Your task to perform on an android device: create a new album in the google photos Image 0: 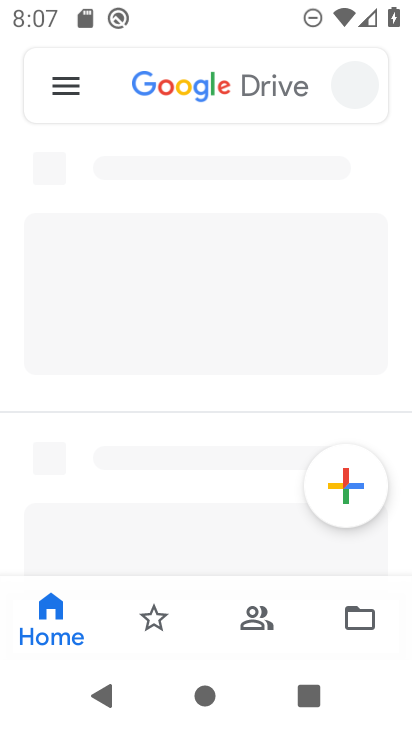
Step 0: drag from (209, 576) to (261, 305)
Your task to perform on an android device: create a new album in the google photos Image 1: 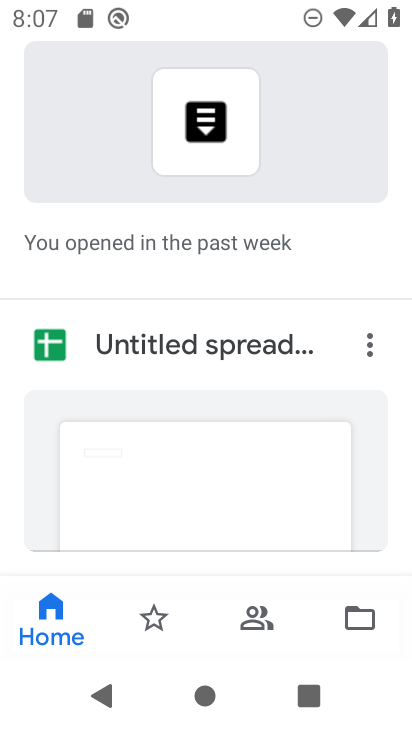
Step 1: press home button
Your task to perform on an android device: create a new album in the google photos Image 2: 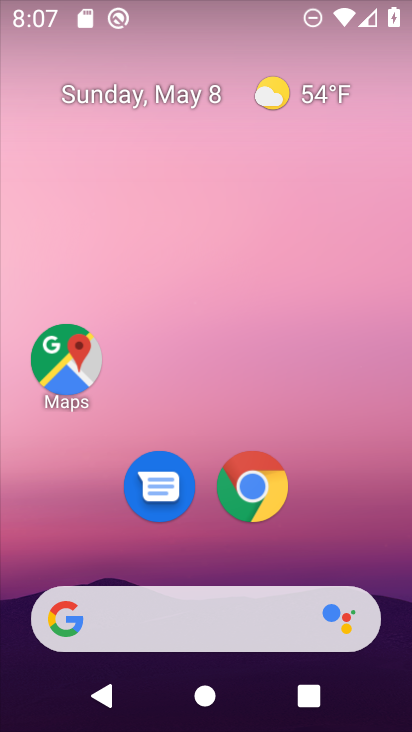
Step 2: drag from (189, 538) to (267, 221)
Your task to perform on an android device: create a new album in the google photos Image 3: 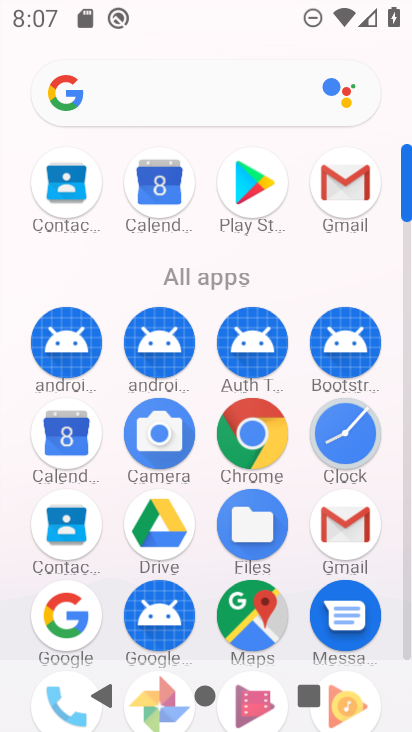
Step 3: drag from (210, 563) to (261, 292)
Your task to perform on an android device: create a new album in the google photos Image 4: 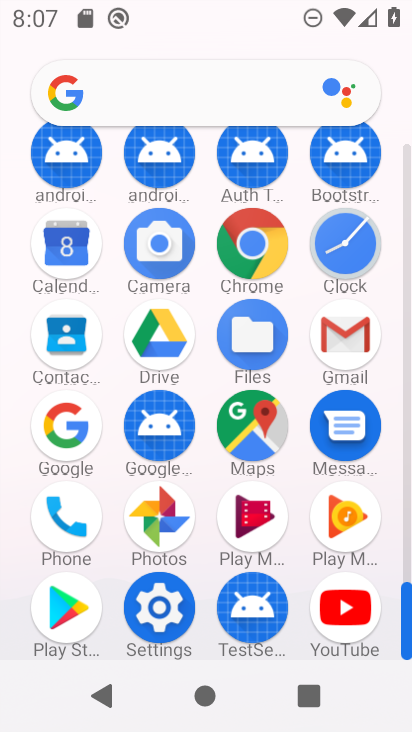
Step 4: click (151, 524)
Your task to perform on an android device: create a new album in the google photos Image 5: 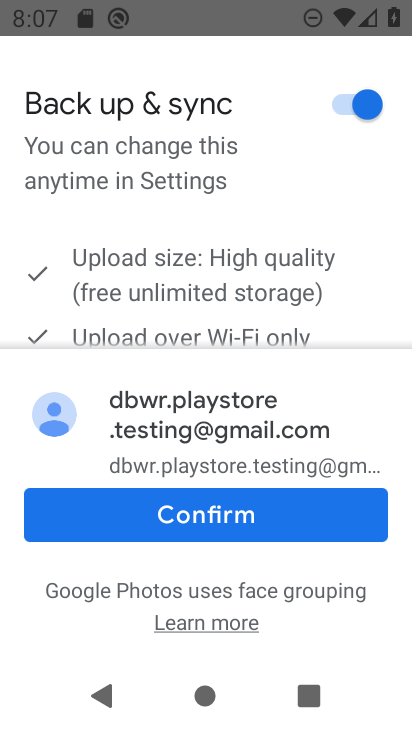
Step 5: click (159, 503)
Your task to perform on an android device: create a new album in the google photos Image 6: 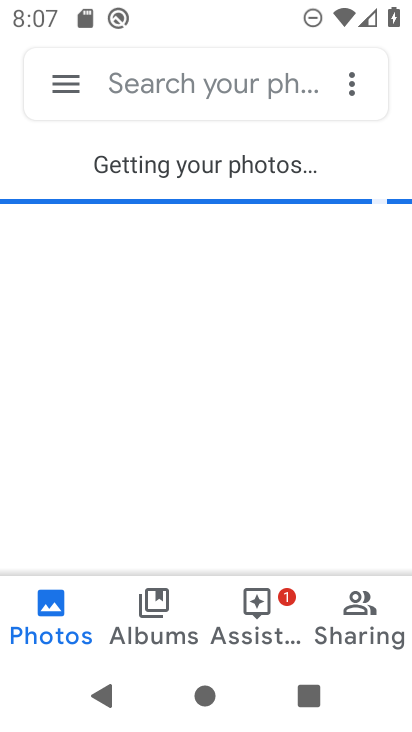
Step 6: click (148, 630)
Your task to perform on an android device: create a new album in the google photos Image 7: 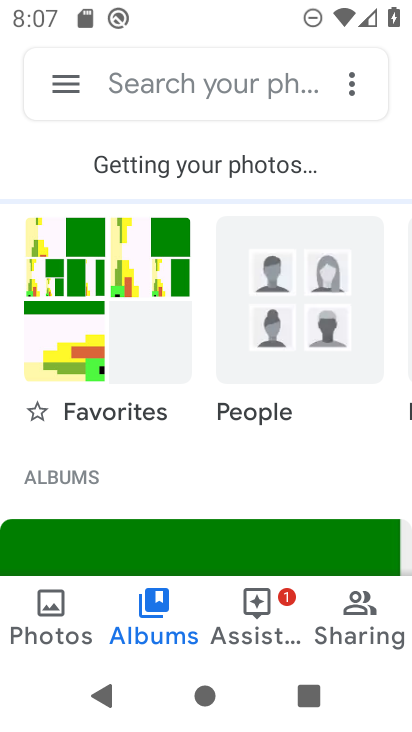
Step 7: click (260, 634)
Your task to perform on an android device: create a new album in the google photos Image 8: 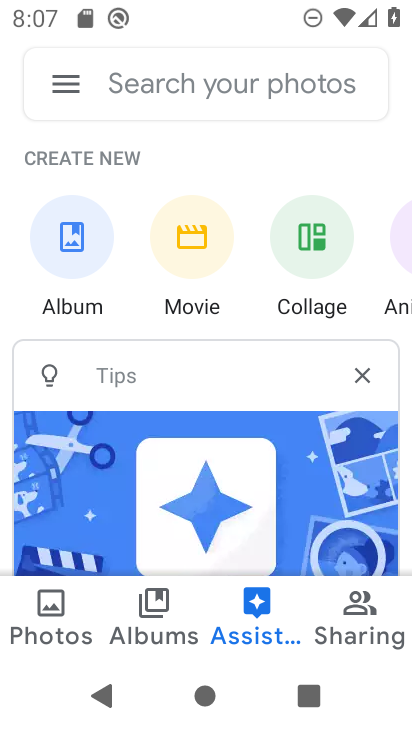
Step 8: click (76, 247)
Your task to perform on an android device: create a new album in the google photos Image 9: 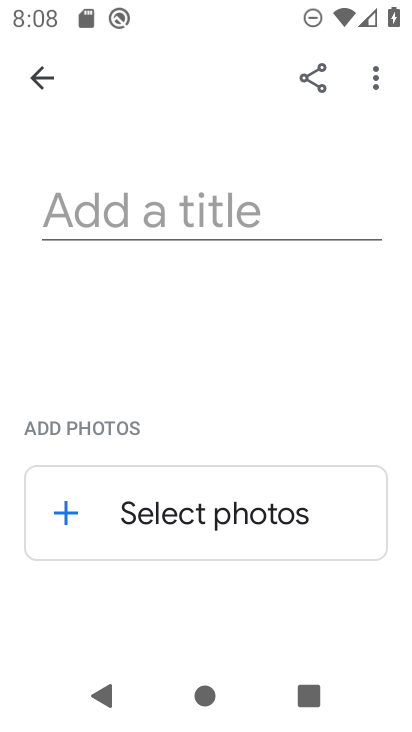
Step 9: click (175, 494)
Your task to perform on an android device: create a new album in the google photos Image 10: 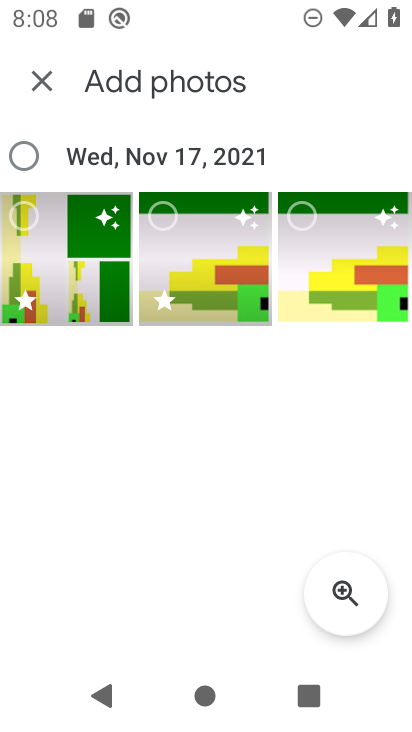
Step 10: click (35, 83)
Your task to perform on an android device: create a new album in the google photos Image 11: 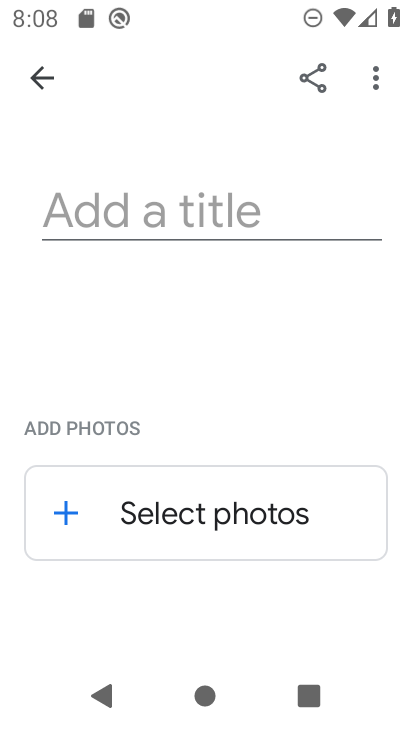
Step 11: click (136, 508)
Your task to perform on an android device: create a new album in the google photos Image 12: 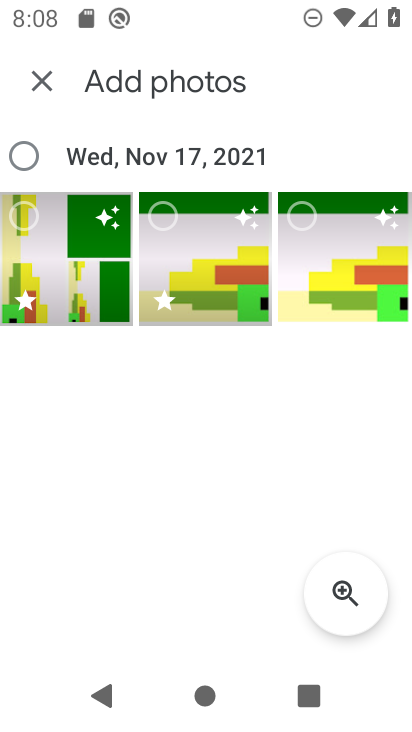
Step 12: click (30, 218)
Your task to perform on an android device: create a new album in the google photos Image 13: 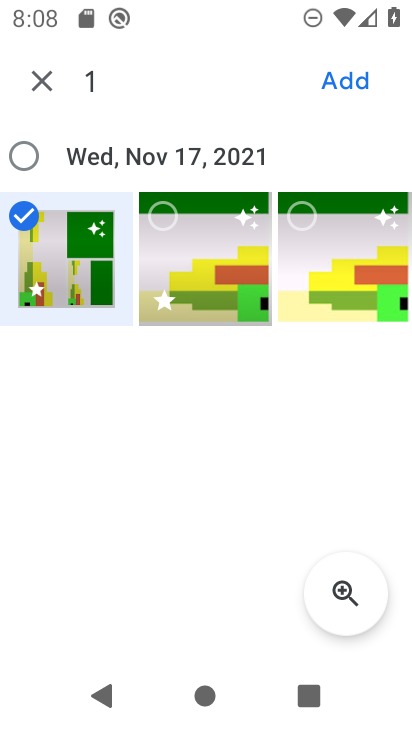
Step 13: click (339, 69)
Your task to perform on an android device: create a new album in the google photos Image 14: 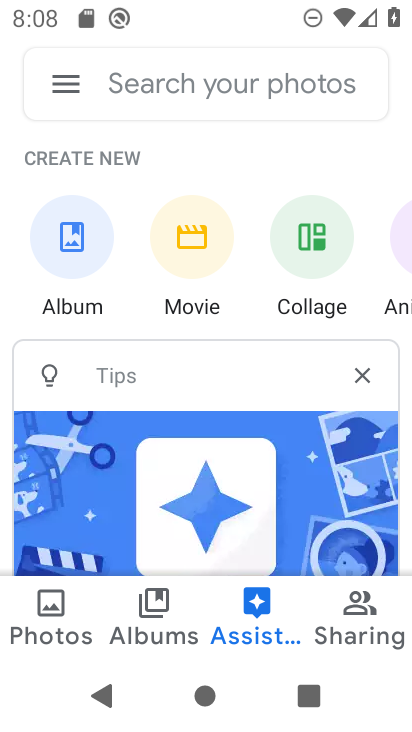
Step 14: click (82, 259)
Your task to perform on an android device: create a new album in the google photos Image 15: 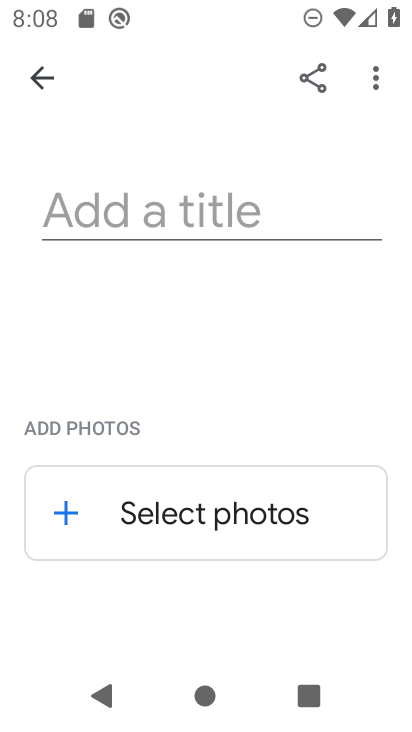
Step 15: click (146, 204)
Your task to perform on an android device: create a new album in the google photos Image 16: 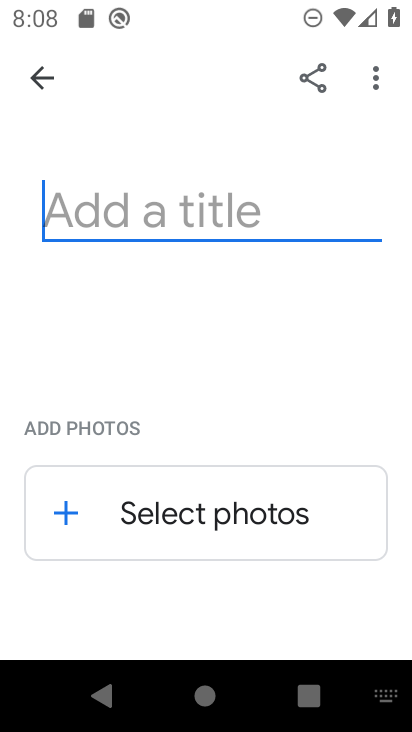
Step 16: type "dvd"
Your task to perform on an android device: create a new album in the google photos Image 17: 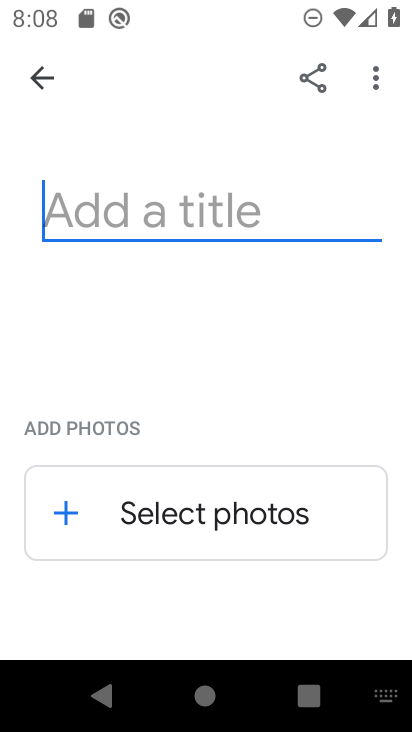
Step 17: click (70, 504)
Your task to perform on an android device: create a new album in the google photos Image 18: 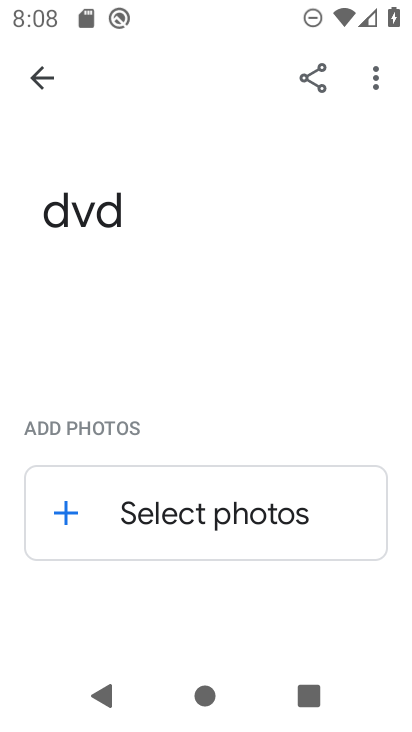
Step 18: click (69, 508)
Your task to perform on an android device: create a new album in the google photos Image 19: 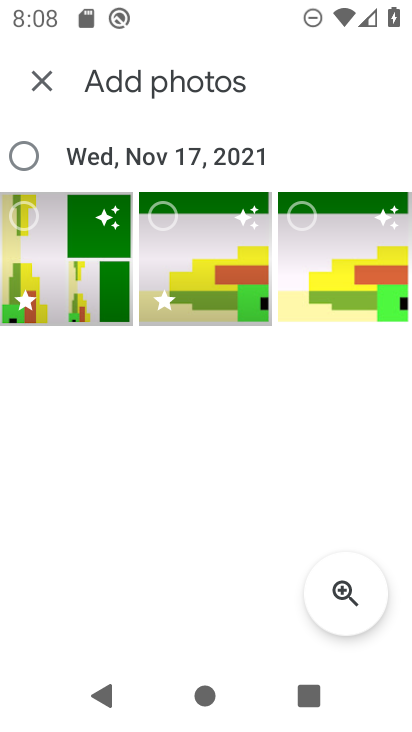
Step 19: click (30, 217)
Your task to perform on an android device: create a new album in the google photos Image 20: 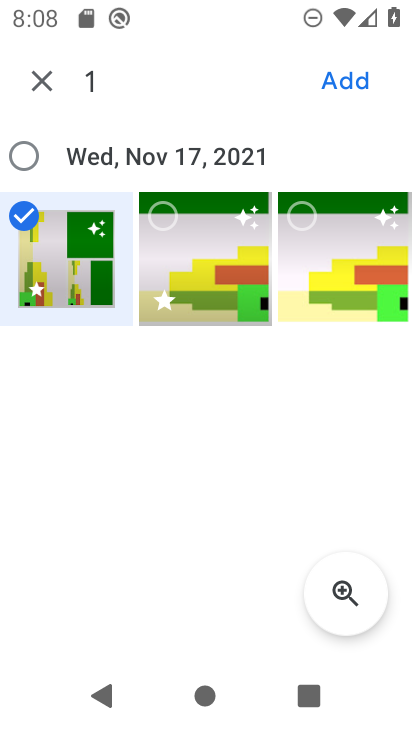
Step 20: click (341, 69)
Your task to perform on an android device: create a new album in the google photos Image 21: 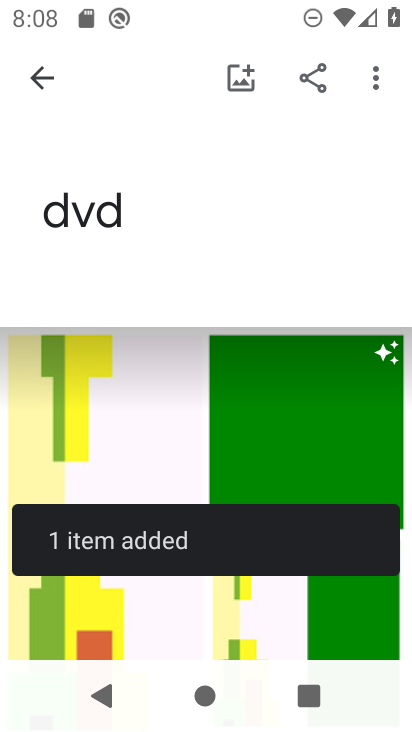
Step 21: task complete